Your task to perform on an android device: turn off location Image 0: 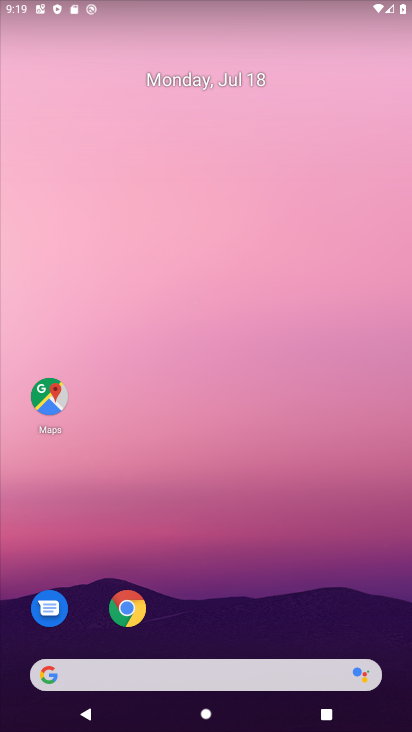
Step 0: drag from (202, 631) to (267, 115)
Your task to perform on an android device: turn off location Image 1: 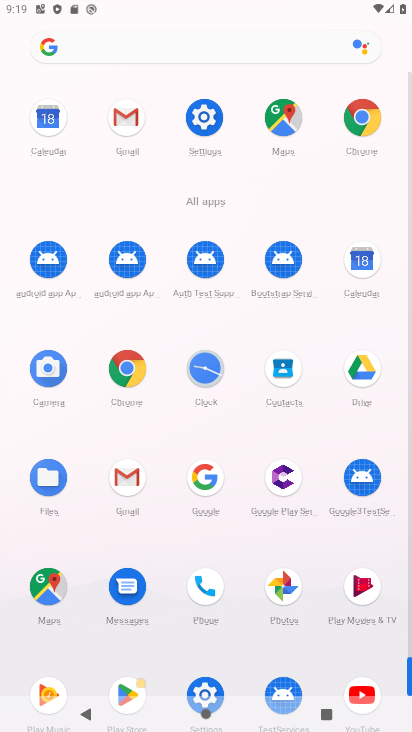
Step 1: click (253, 393)
Your task to perform on an android device: turn off location Image 2: 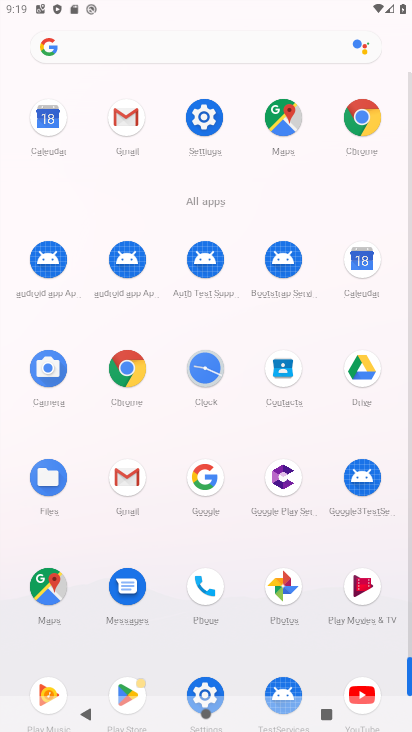
Step 2: click (208, 689)
Your task to perform on an android device: turn off location Image 3: 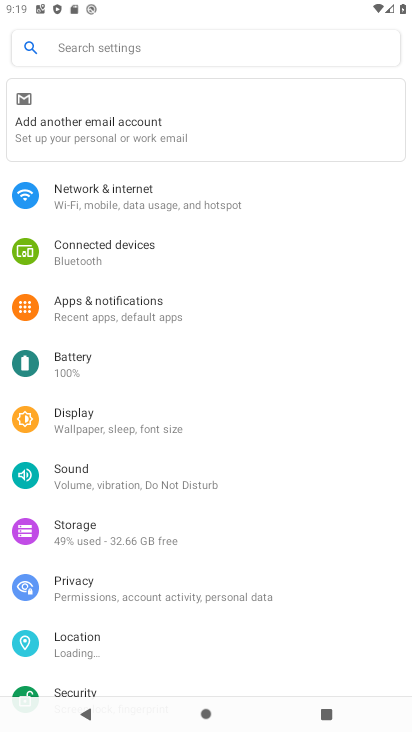
Step 3: click (89, 645)
Your task to perform on an android device: turn off location Image 4: 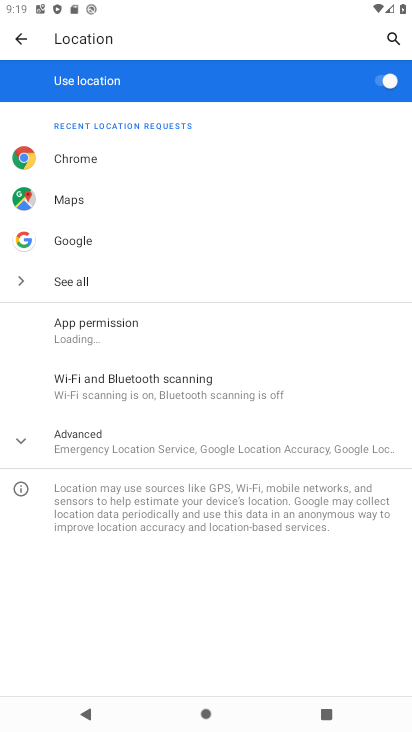
Step 4: click (356, 87)
Your task to perform on an android device: turn off location Image 5: 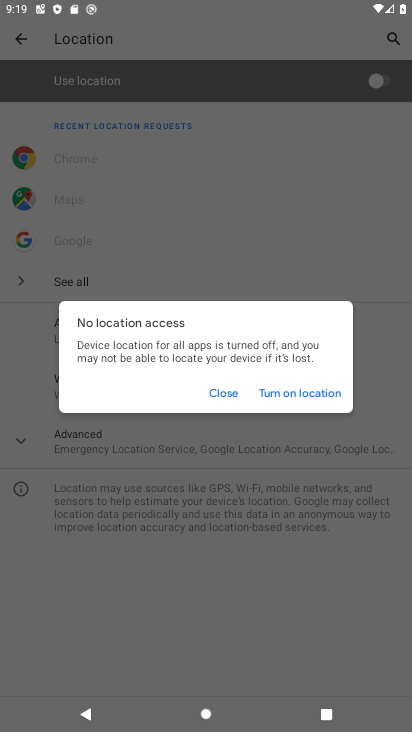
Step 5: task complete